Your task to perform on an android device: Open the stopwatch Image 0: 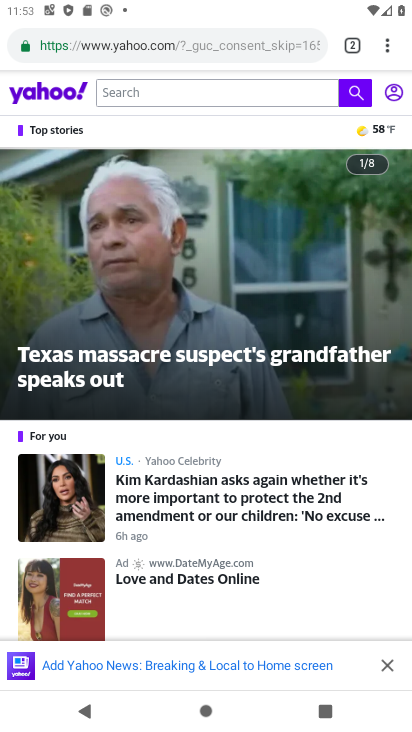
Step 0: press back button
Your task to perform on an android device: Open the stopwatch Image 1: 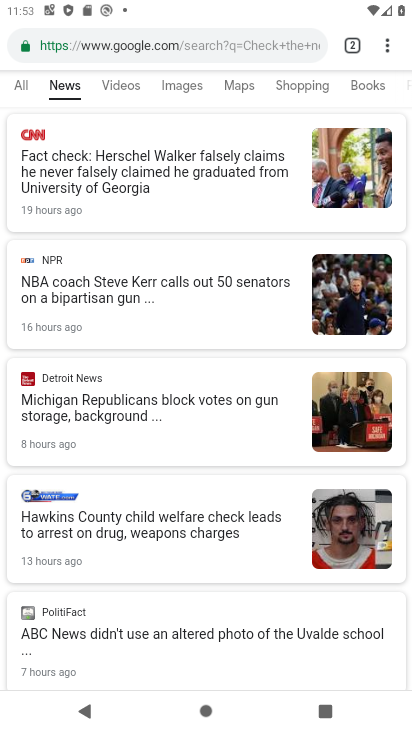
Step 1: press home button
Your task to perform on an android device: Open the stopwatch Image 2: 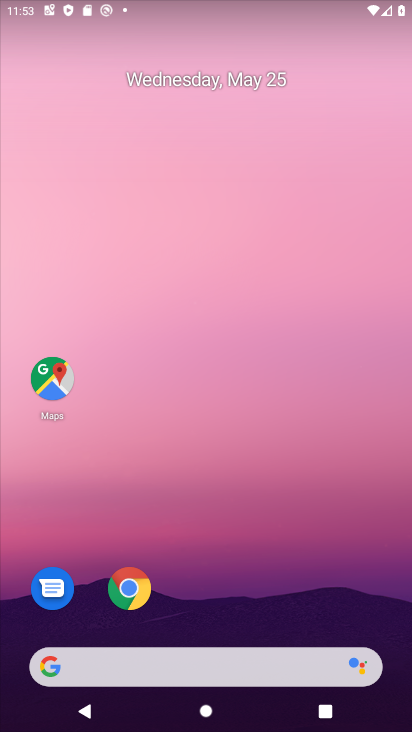
Step 2: drag from (225, 535) to (203, 17)
Your task to perform on an android device: Open the stopwatch Image 3: 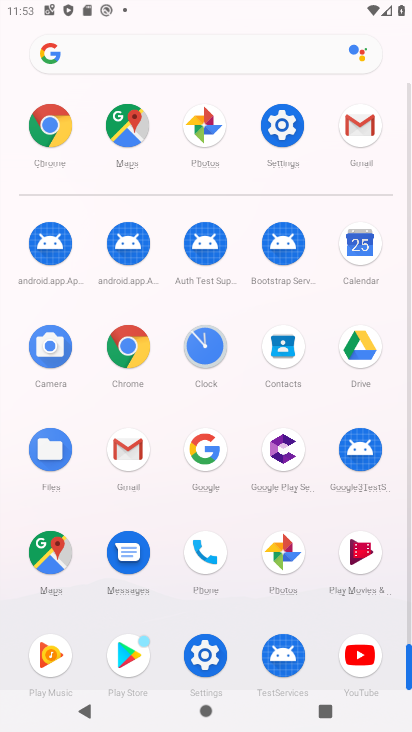
Step 3: drag from (3, 548) to (10, 189)
Your task to perform on an android device: Open the stopwatch Image 4: 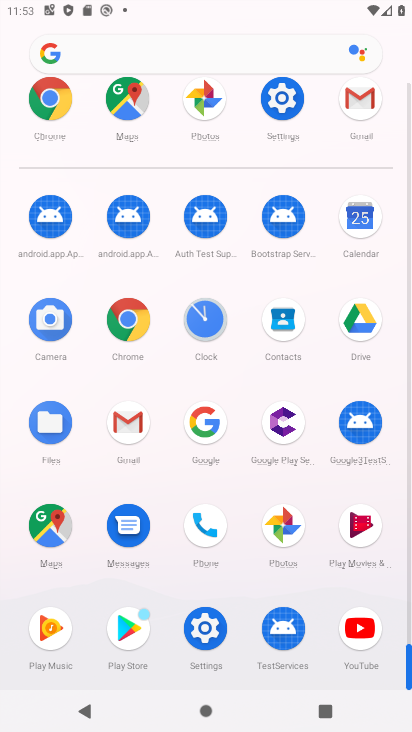
Step 4: click (202, 318)
Your task to perform on an android device: Open the stopwatch Image 5: 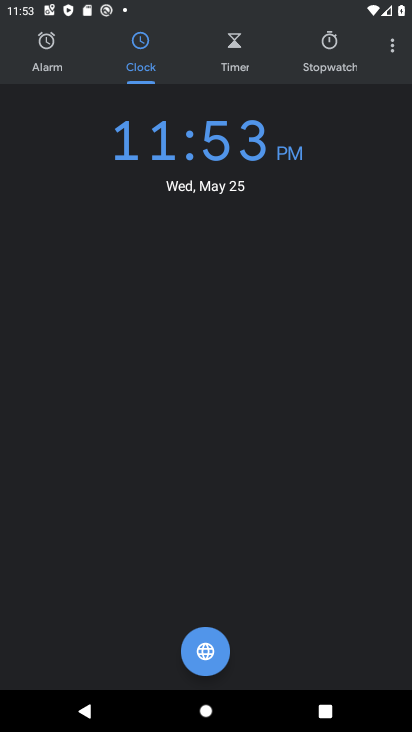
Step 5: click (340, 48)
Your task to perform on an android device: Open the stopwatch Image 6: 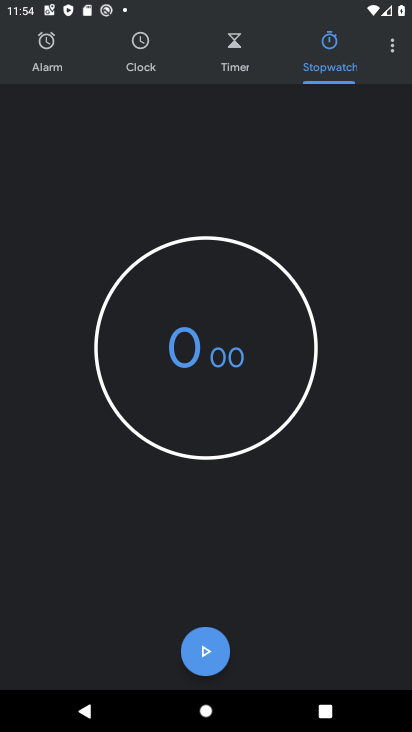
Step 6: task complete